Your task to perform on an android device: allow cookies in the chrome app Image 0: 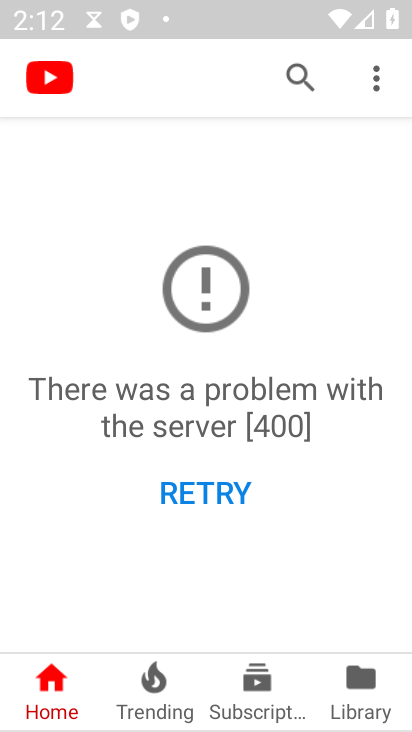
Step 0: press home button
Your task to perform on an android device: allow cookies in the chrome app Image 1: 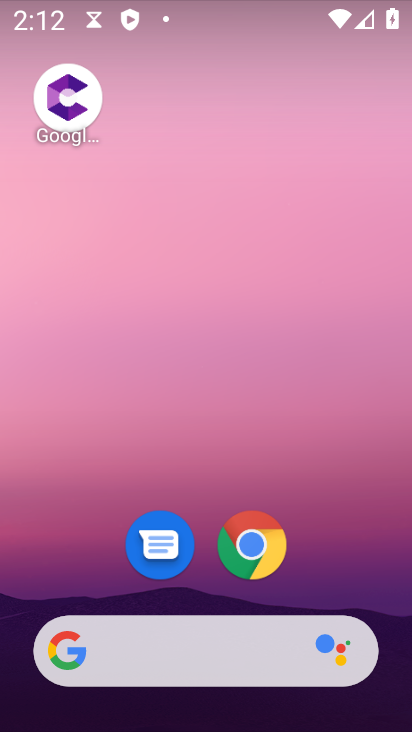
Step 1: click (257, 541)
Your task to perform on an android device: allow cookies in the chrome app Image 2: 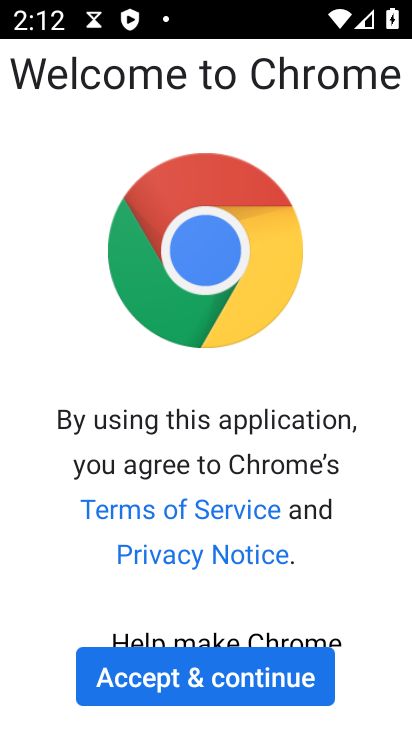
Step 2: click (261, 660)
Your task to perform on an android device: allow cookies in the chrome app Image 3: 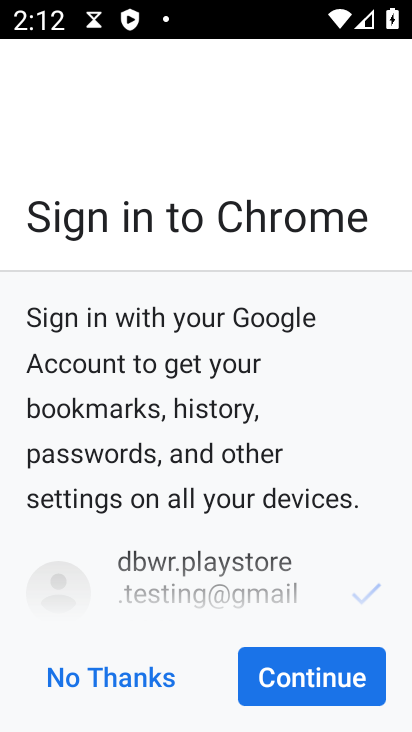
Step 3: click (315, 689)
Your task to perform on an android device: allow cookies in the chrome app Image 4: 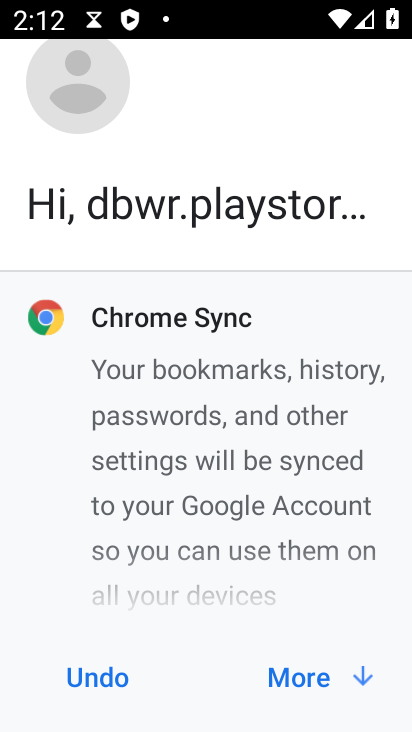
Step 4: click (309, 676)
Your task to perform on an android device: allow cookies in the chrome app Image 5: 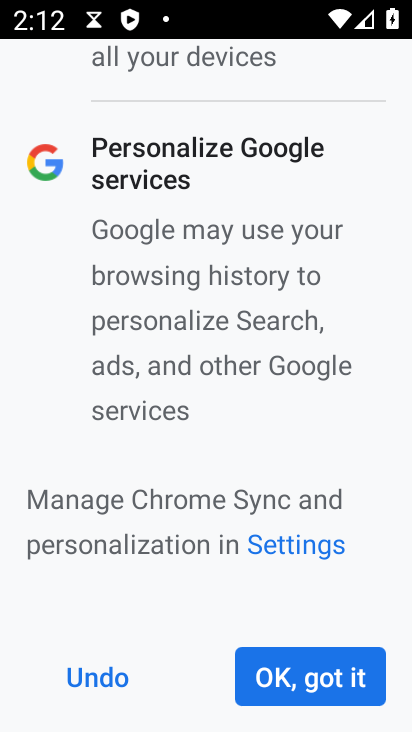
Step 5: click (309, 676)
Your task to perform on an android device: allow cookies in the chrome app Image 6: 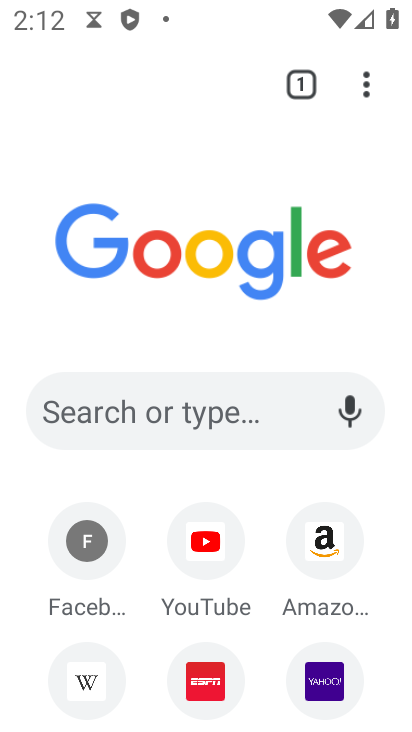
Step 6: click (372, 88)
Your task to perform on an android device: allow cookies in the chrome app Image 7: 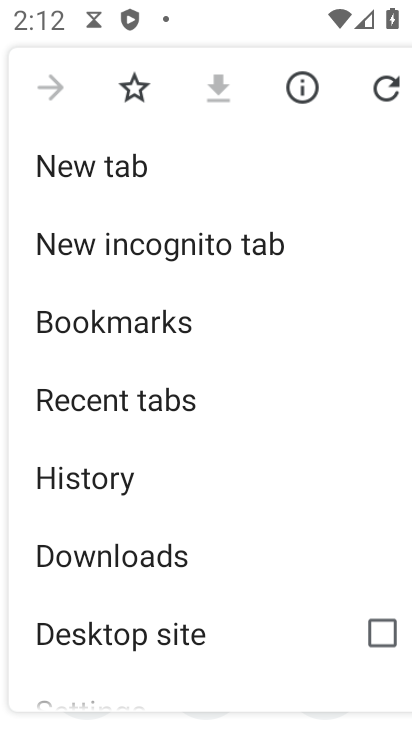
Step 7: drag from (175, 568) to (208, 177)
Your task to perform on an android device: allow cookies in the chrome app Image 8: 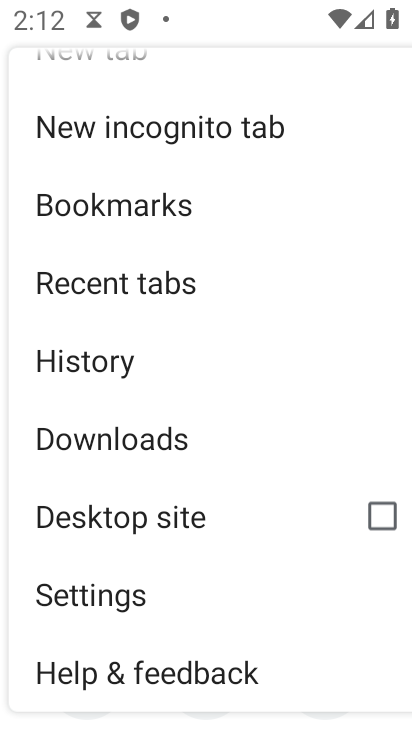
Step 8: click (130, 605)
Your task to perform on an android device: allow cookies in the chrome app Image 9: 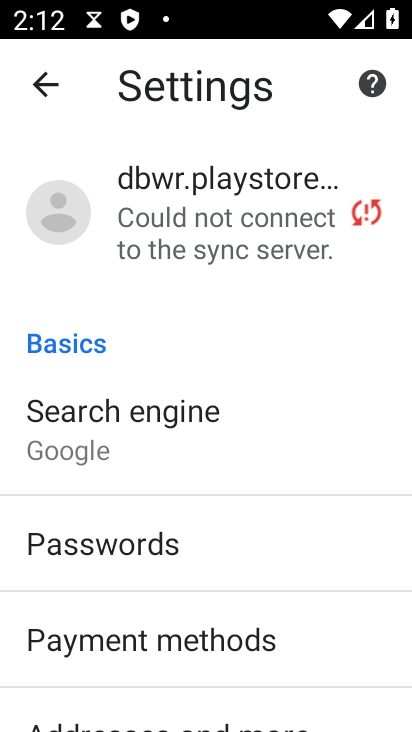
Step 9: drag from (167, 575) to (226, 281)
Your task to perform on an android device: allow cookies in the chrome app Image 10: 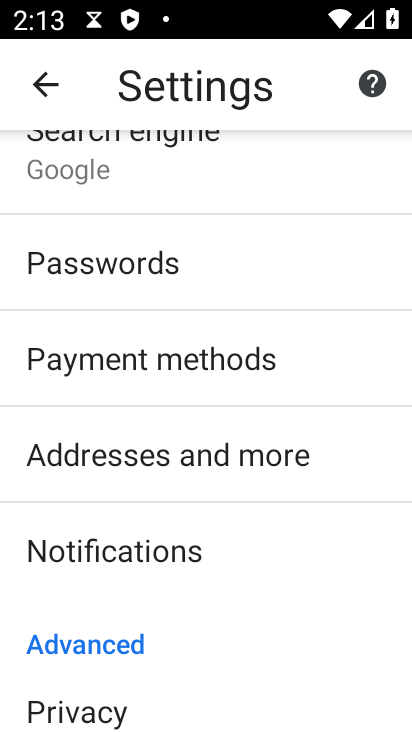
Step 10: drag from (227, 590) to (243, 187)
Your task to perform on an android device: allow cookies in the chrome app Image 11: 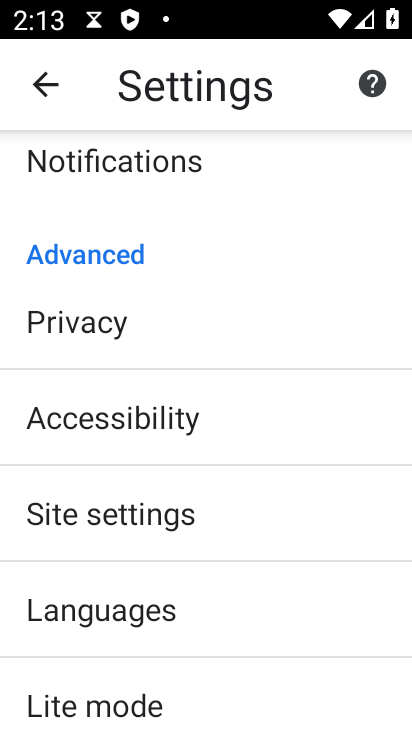
Step 11: click (121, 501)
Your task to perform on an android device: allow cookies in the chrome app Image 12: 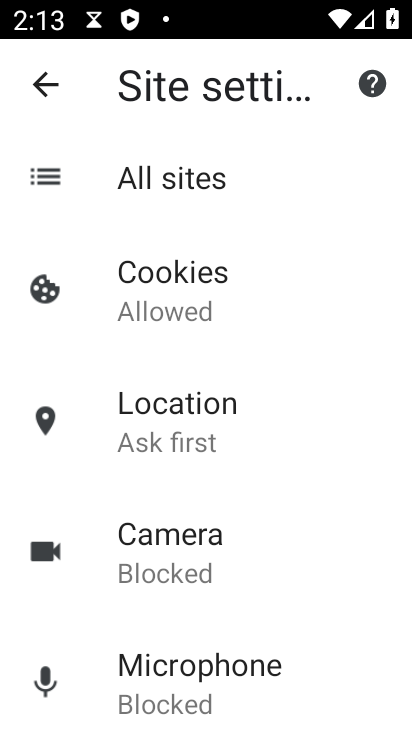
Step 12: click (177, 297)
Your task to perform on an android device: allow cookies in the chrome app Image 13: 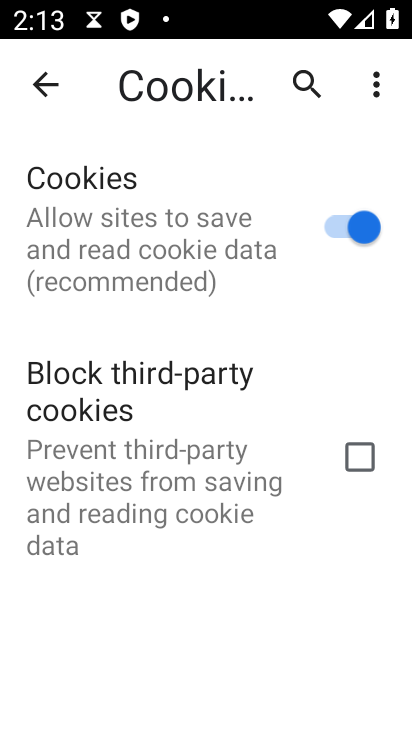
Step 13: task complete